Your task to perform on an android device: Go to sound settings Image 0: 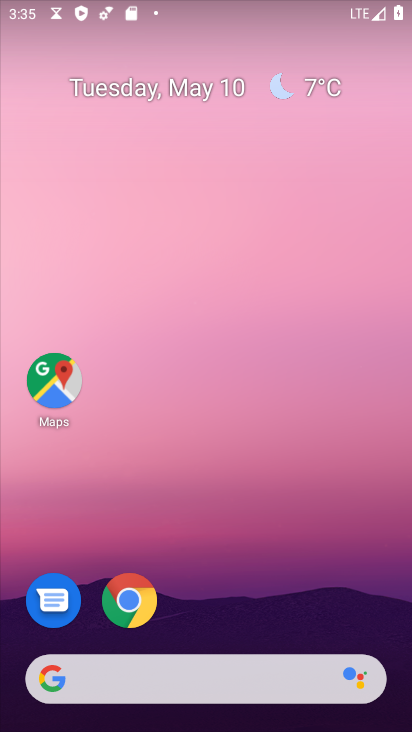
Step 0: drag from (279, 576) to (255, 170)
Your task to perform on an android device: Go to sound settings Image 1: 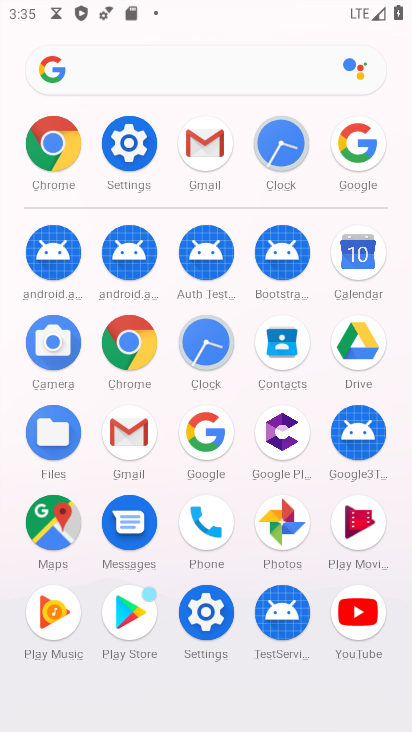
Step 1: click (121, 158)
Your task to perform on an android device: Go to sound settings Image 2: 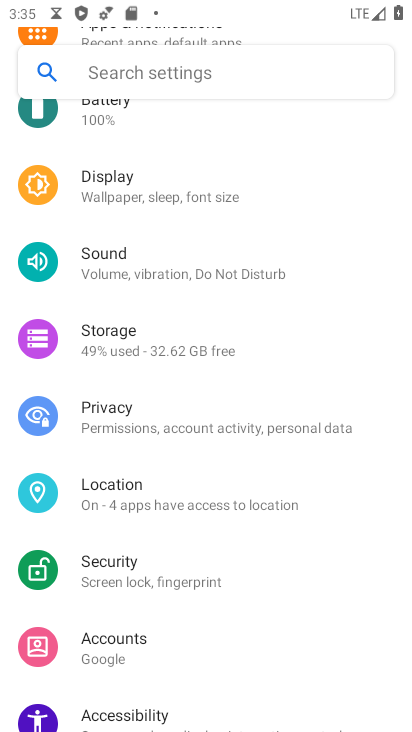
Step 2: drag from (204, 619) to (190, 524)
Your task to perform on an android device: Go to sound settings Image 3: 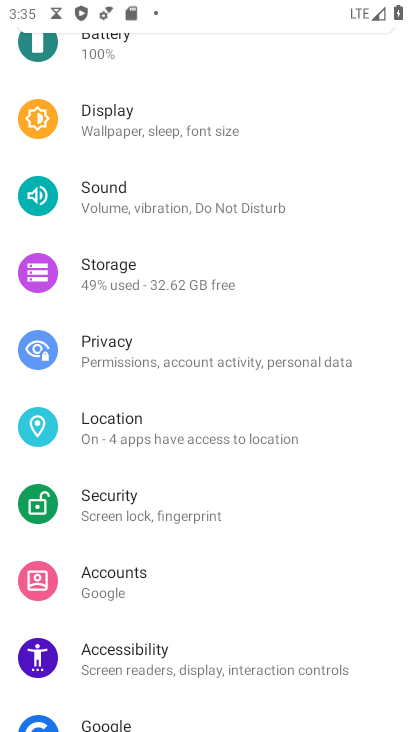
Step 3: drag from (215, 632) to (202, 410)
Your task to perform on an android device: Go to sound settings Image 4: 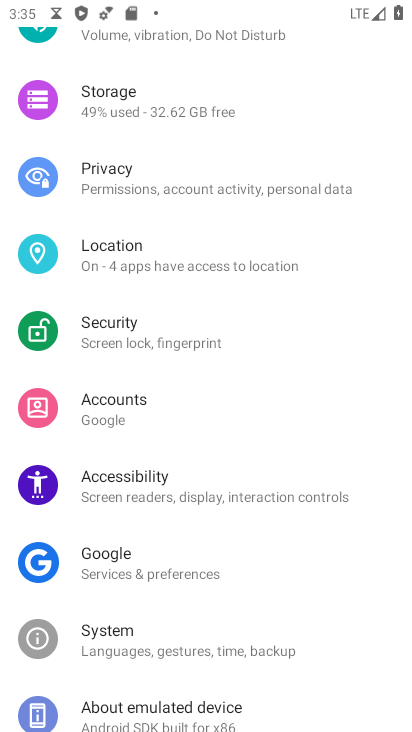
Step 4: drag from (200, 71) to (220, 399)
Your task to perform on an android device: Go to sound settings Image 5: 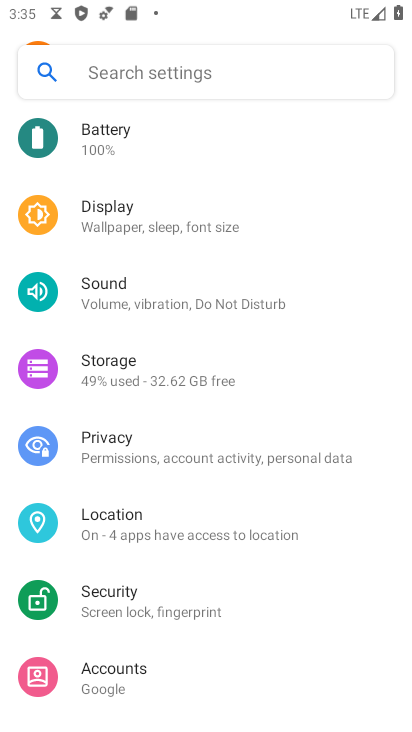
Step 5: click (178, 305)
Your task to perform on an android device: Go to sound settings Image 6: 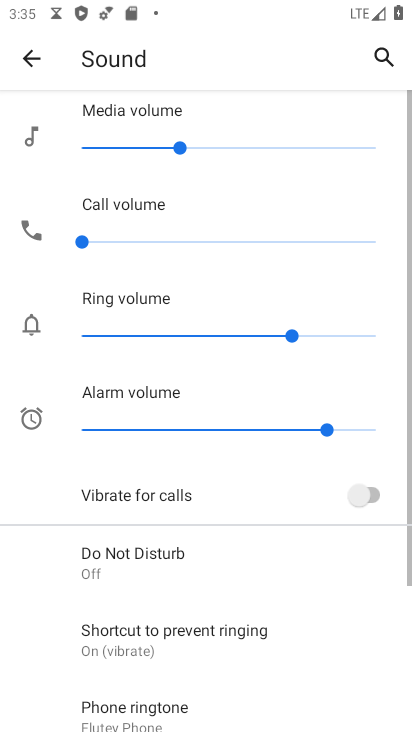
Step 6: task complete